Your task to perform on an android device: open wifi settings Image 0: 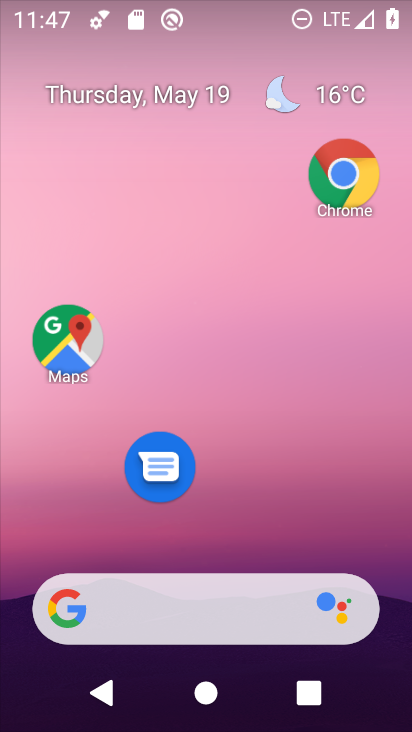
Step 0: drag from (300, 538) to (287, 243)
Your task to perform on an android device: open wifi settings Image 1: 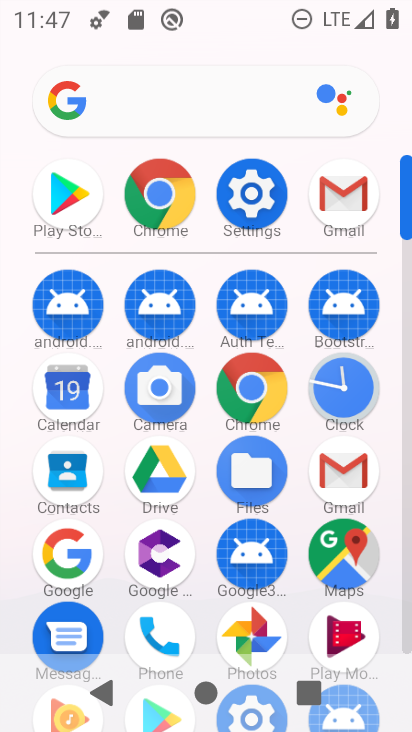
Step 1: click (248, 180)
Your task to perform on an android device: open wifi settings Image 2: 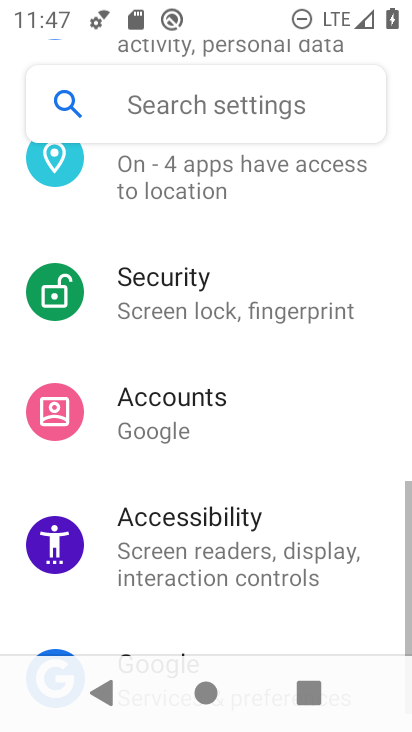
Step 2: drag from (236, 231) to (205, 579)
Your task to perform on an android device: open wifi settings Image 3: 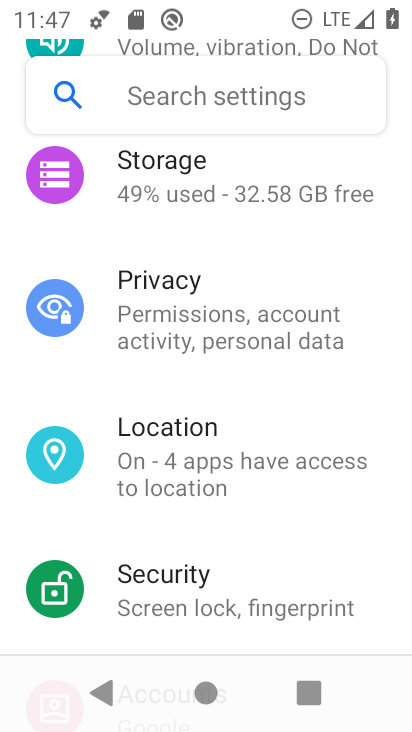
Step 3: drag from (261, 199) to (185, 662)
Your task to perform on an android device: open wifi settings Image 4: 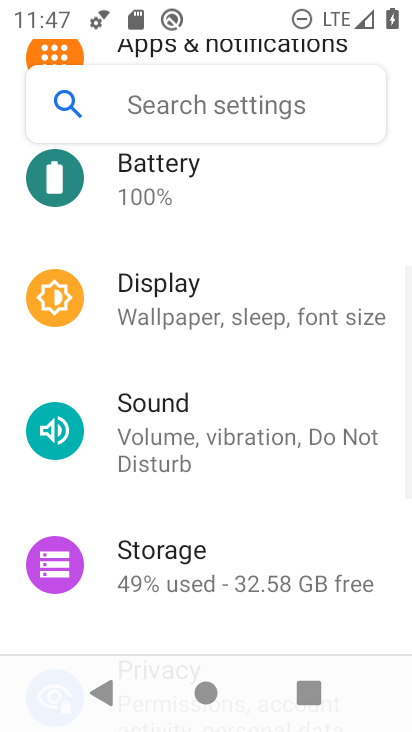
Step 4: drag from (258, 246) to (190, 619)
Your task to perform on an android device: open wifi settings Image 5: 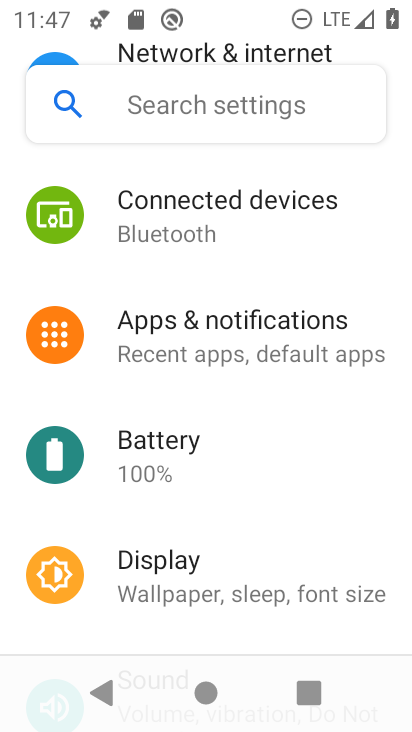
Step 5: drag from (251, 207) to (269, 553)
Your task to perform on an android device: open wifi settings Image 6: 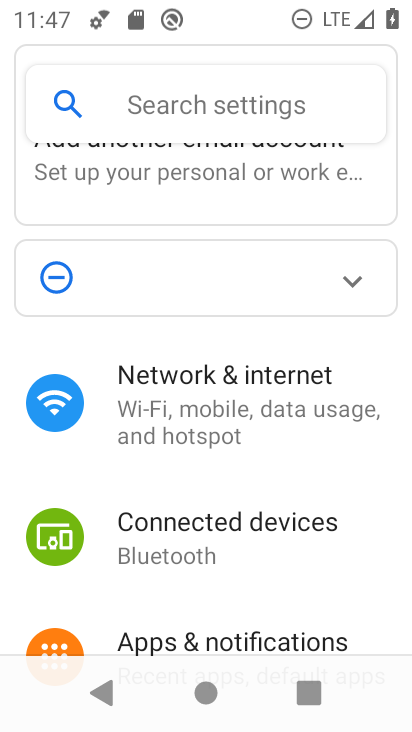
Step 6: click (228, 387)
Your task to perform on an android device: open wifi settings Image 7: 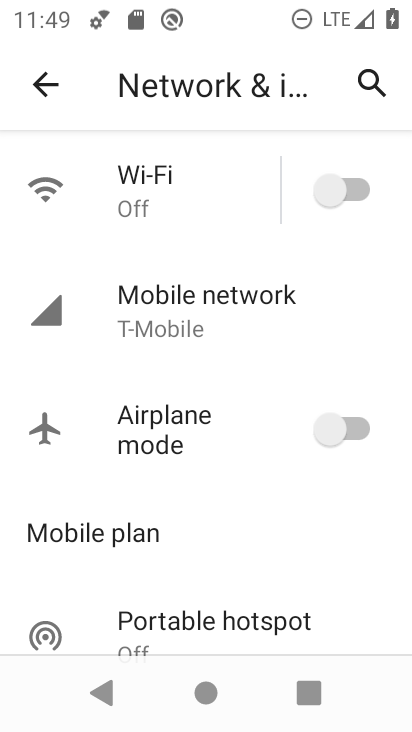
Step 7: task complete